Your task to perform on an android device: turn off notifications settings in the gmail app Image 0: 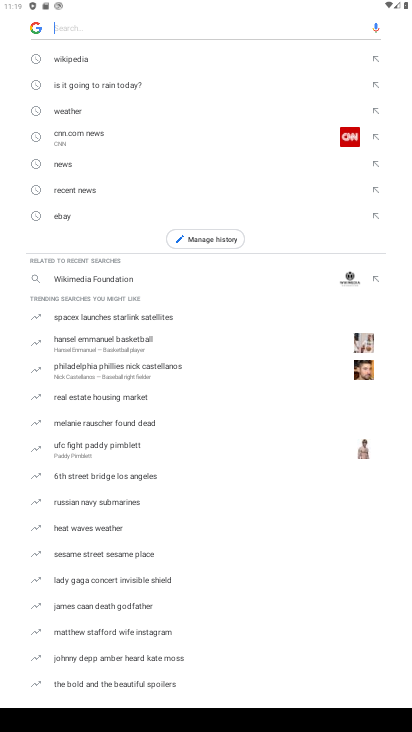
Step 0: press home button
Your task to perform on an android device: turn off notifications settings in the gmail app Image 1: 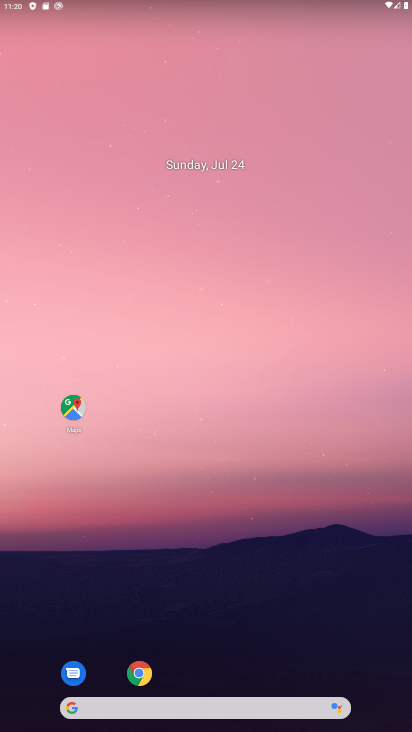
Step 1: drag from (217, 371) to (238, 177)
Your task to perform on an android device: turn off notifications settings in the gmail app Image 2: 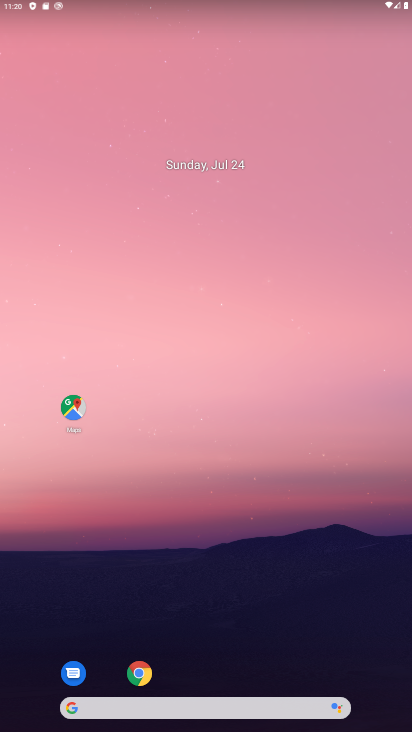
Step 2: drag from (272, 619) to (393, 154)
Your task to perform on an android device: turn off notifications settings in the gmail app Image 3: 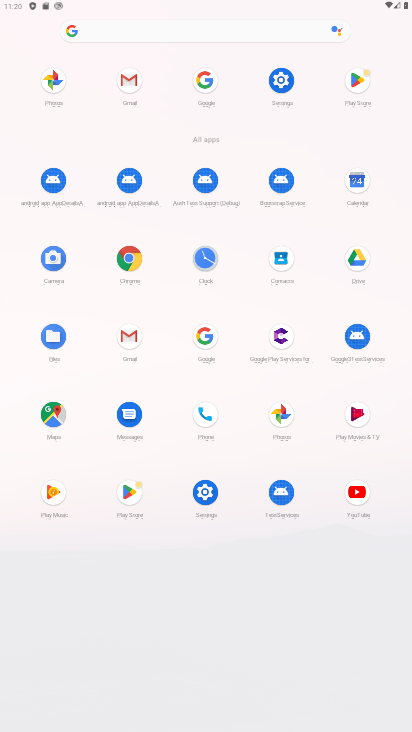
Step 3: click (135, 79)
Your task to perform on an android device: turn off notifications settings in the gmail app Image 4: 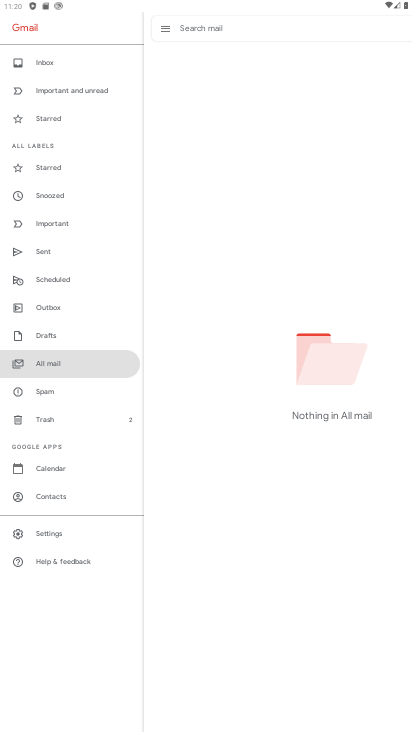
Step 4: click (45, 532)
Your task to perform on an android device: turn off notifications settings in the gmail app Image 5: 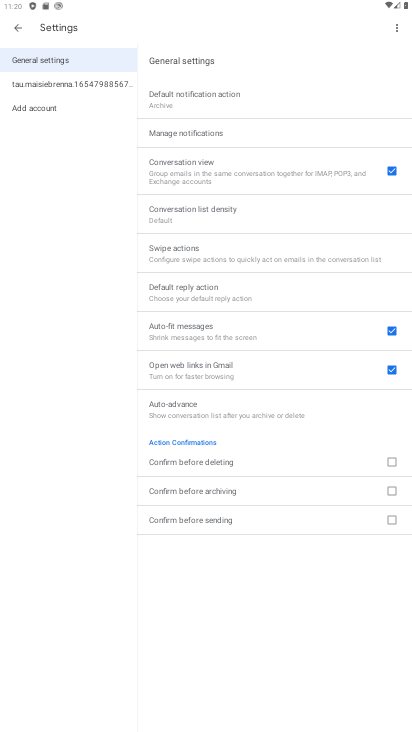
Step 5: click (35, 84)
Your task to perform on an android device: turn off notifications settings in the gmail app Image 6: 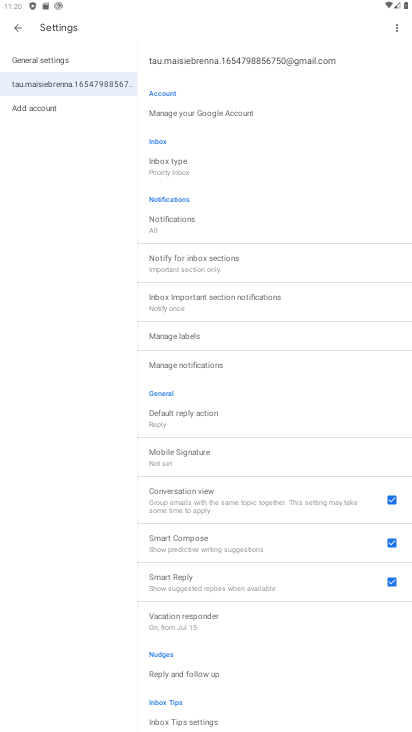
Step 6: drag from (309, 664) to (256, 244)
Your task to perform on an android device: turn off notifications settings in the gmail app Image 7: 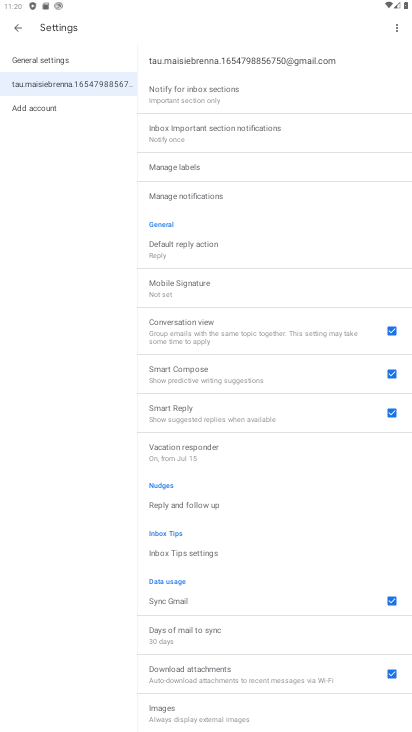
Step 7: drag from (267, 569) to (217, 301)
Your task to perform on an android device: turn off notifications settings in the gmail app Image 8: 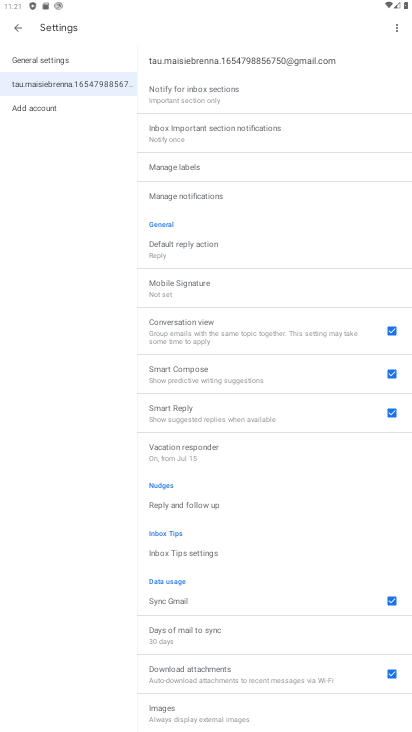
Step 8: drag from (256, 581) to (248, 176)
Your task to perform on an android device: turn off notifications settings in the gmail app Image 9: 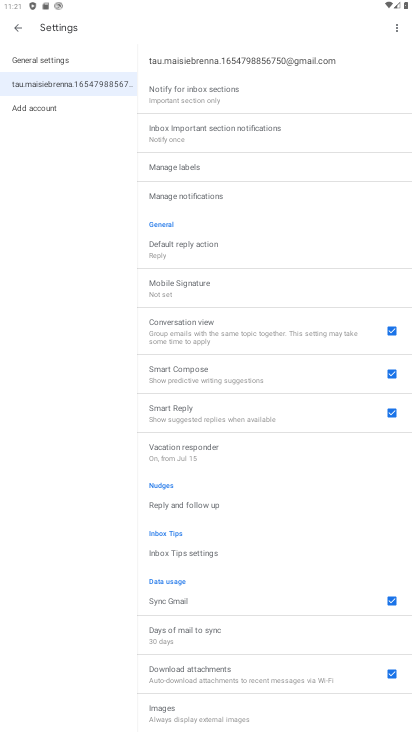
Step 9: drag from (232, 585) to (170, 207)
Your task to perform on an android device: turn off notifications settings in the gmail app Image 10: 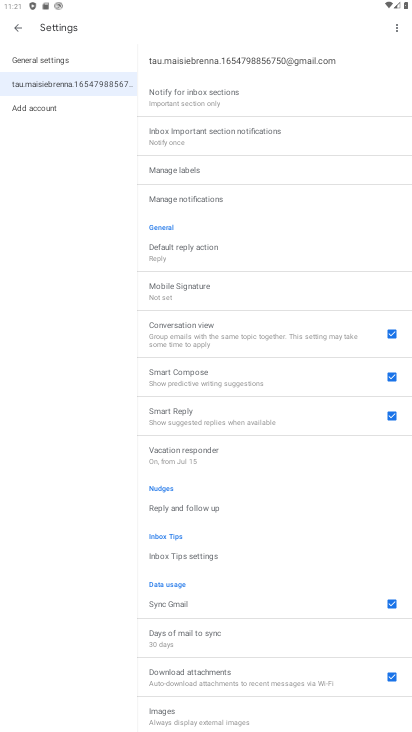
Step 10: click (185, 197)
Your task to perform on an android device: turn off notifications settings in the gmail app Image 11: 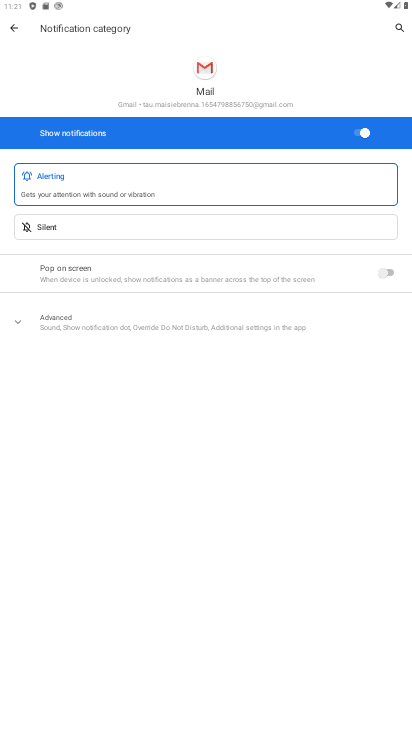
Step 11: click (359, 132)
Your task to perform on an android device: turn off notifications settings in the gmail app Image 12: 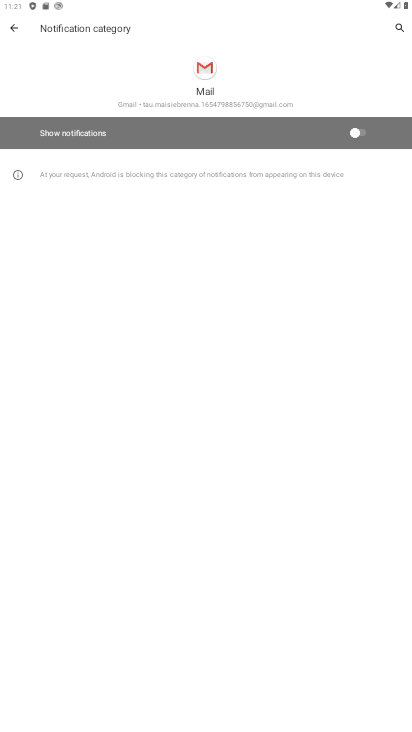
Step 12: task complete